Your task to perform on an android device: toggle priority inbox in the gmail app Image 0: 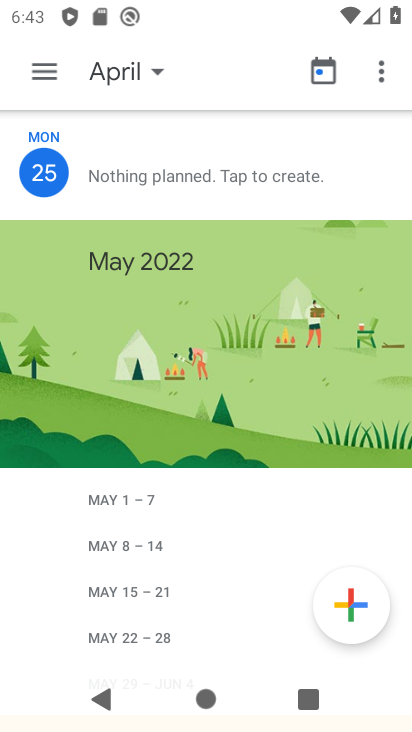
Step 0: press home button
Your task to perform on an android device: toggle priority inbox in the gmail app Image 1: 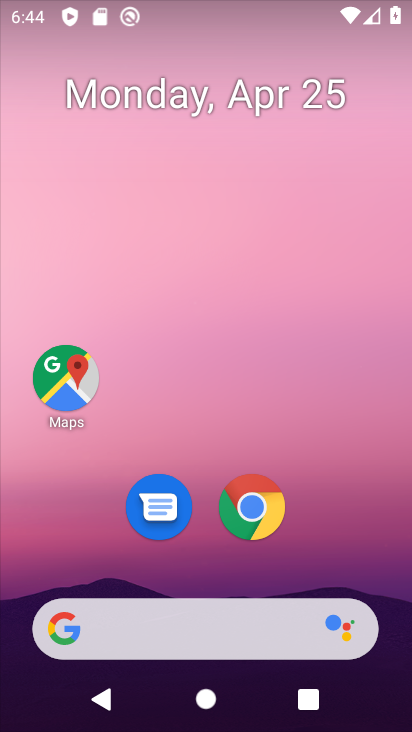
Step 1: drag from (309, 405) to (234, 1)
Your task to perform on an android device: toggle priority inbox in the gmail app Image 2: 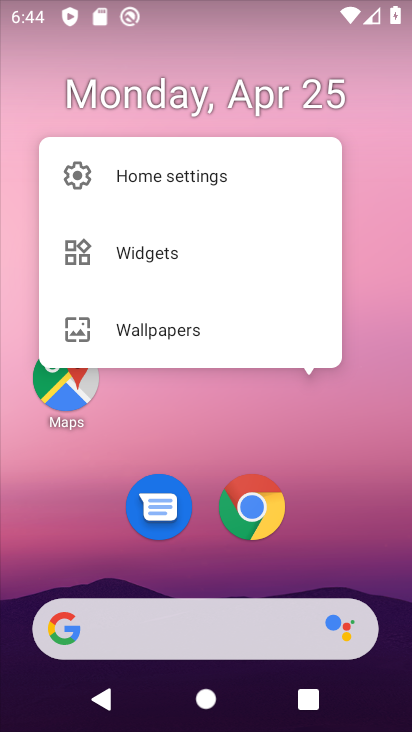
Step 2: click (354, 474)
Your task to perform on an android device: toggle priority inbox in the gmail app Image 3: 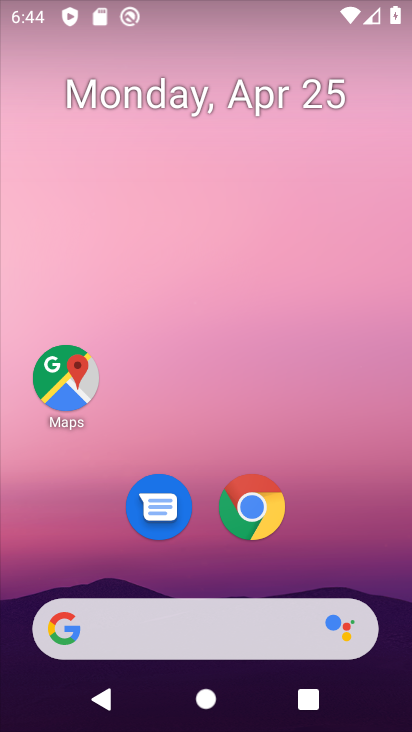
Step 3: drag from (354, 474) to (164, 30)
Your task to perform on an android device: toggle priority inbox in the gmail app Image 4: 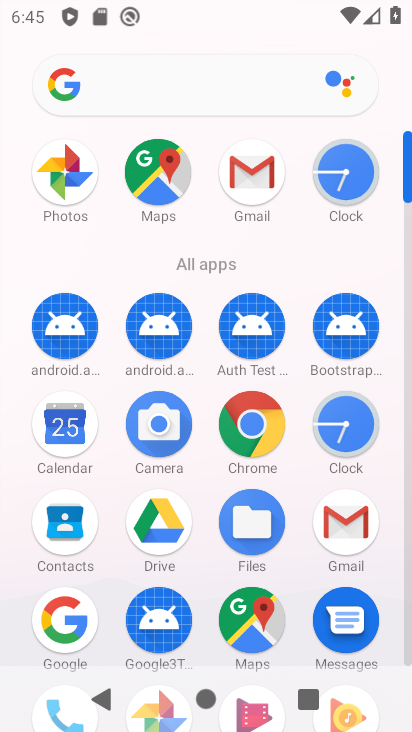
Step 4: drag from (409, 161) to (407, 393)
Your task to perform on an android device: toggle priority inbox in the gmail app Image 5: 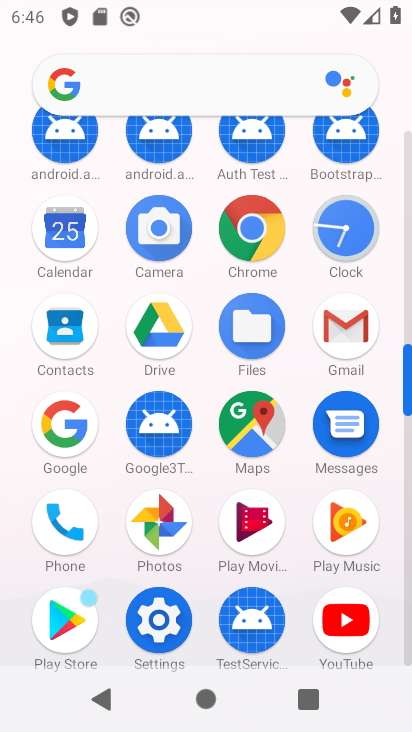
Step 5: click (338, 328)
Your task to perform on an android device: toggle priority inbox in the gmail app Image 6: 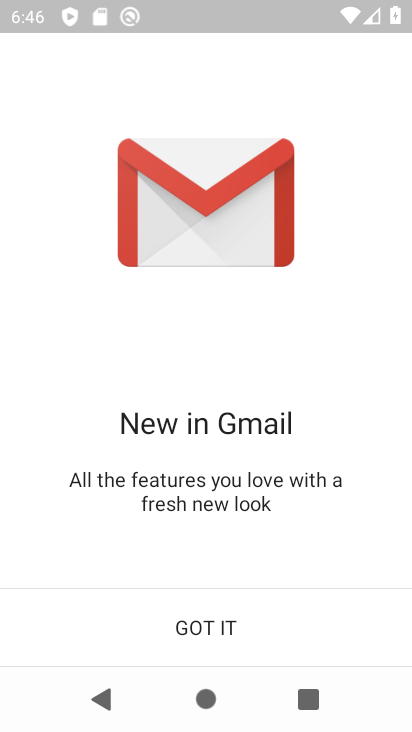
Step 6: click (117, 624)
Your task to perform on an android device: toggle priority inbox in the gmail app Image 7: 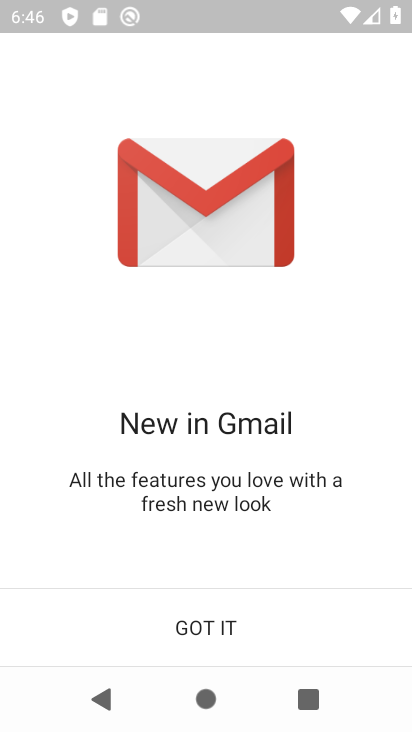
Step 7: click (117, 624)
Your task to perform on an android device: toggle priority inbox in the gmail app Image 8: 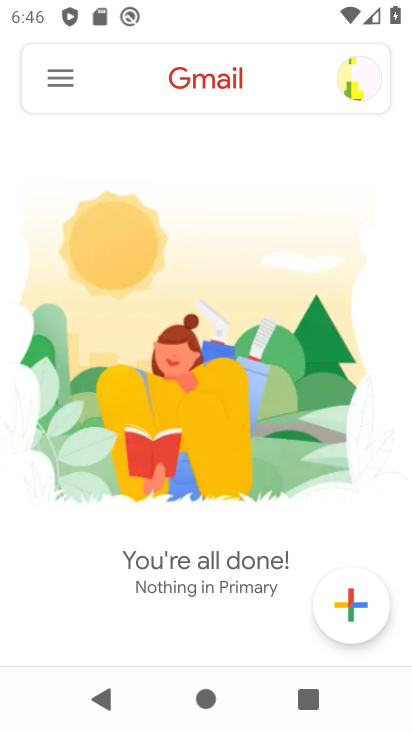
Step 8: click (51, 68)
Your task to perform on an android device: toggle priority inbox in the gmail app Image 9: 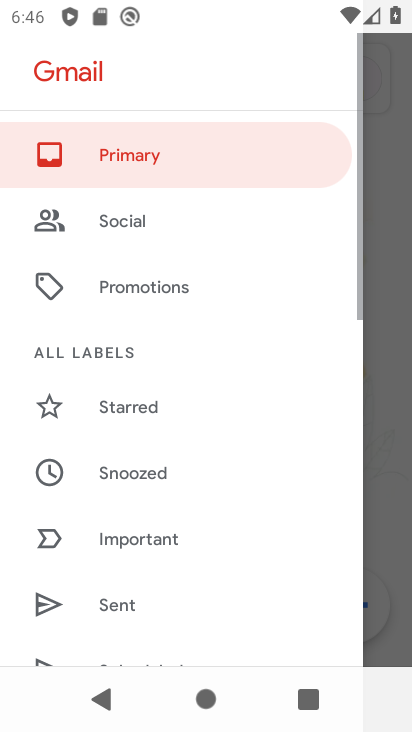
Step 9: drag from (188, 485) to (123, 125)
Your task to perform on an android device: toggle priority inbox in the gmail app Image 10: 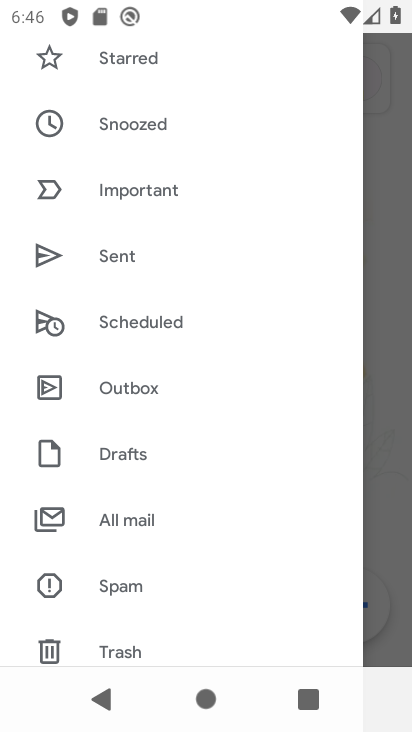
Step 10: drag from (210, 513) to (162, 211)
Your task to perform on an android device: toggle priority inbox in the gmail app Image 11: 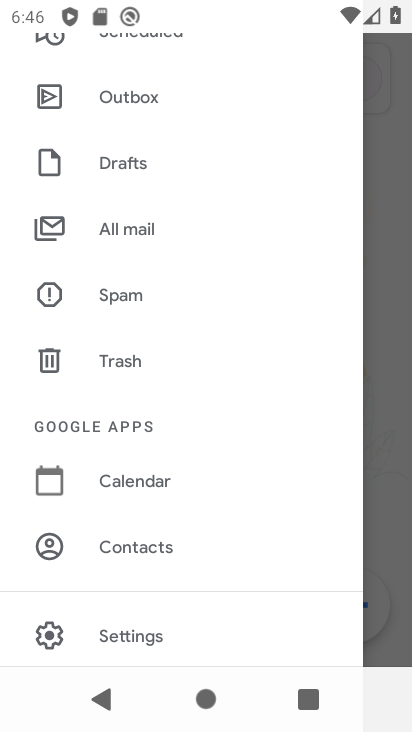
Step 11: click (165, 622)
Your task to perform on an android device: toggle priority inbox in the gmail app Image 12: 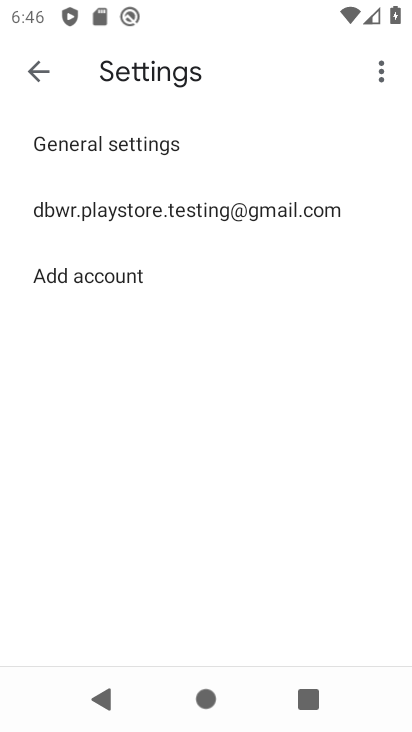
Step 12: click (313, 221)
Your task to perform on an android device: toggle priority inbox in the gmail app Image 13: 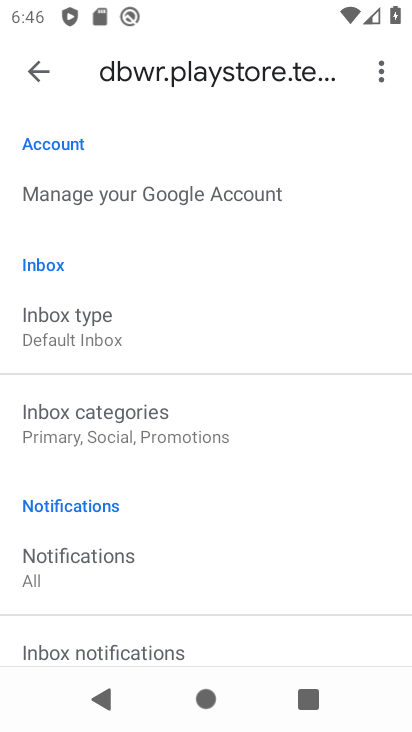
Step 13: click (83, 343)
Your task to perform on an android device: toggle priority inbox in the gmail app Image 14: 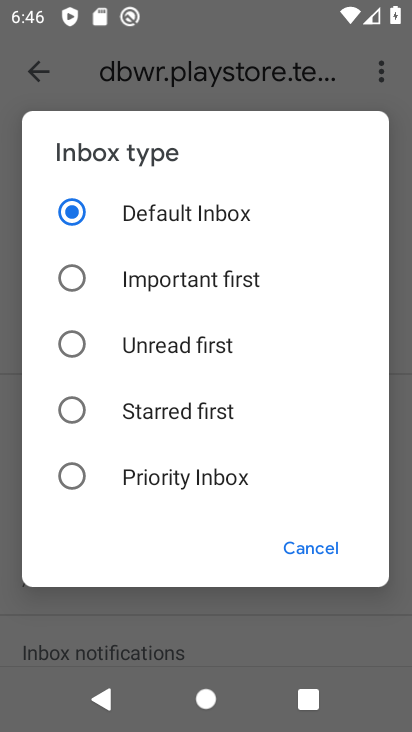
Step 14: click (136, 468)
Your task to perform on an android device: toggle priority inbox in the gmail app Image 15: 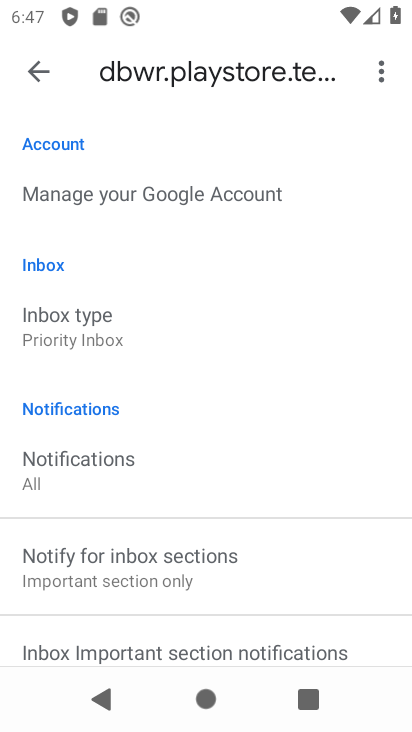
Step 15: task complete